Your task to perform on an android device: delete the emails in spam in the gmail app Image 0: 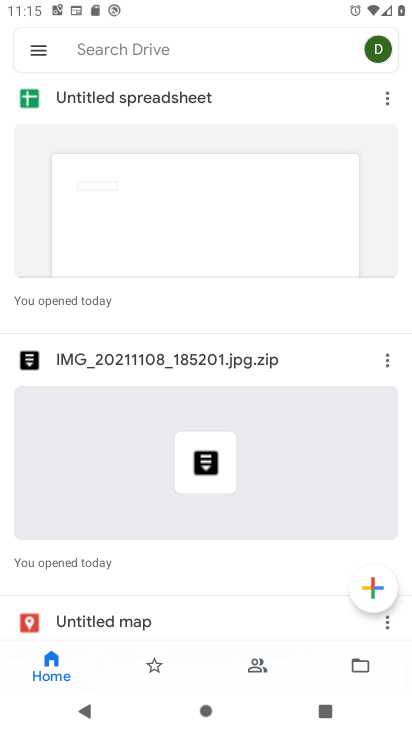
Step 0: press home button
Your task to perform on an android device: delete the emails in spam in the gmail app Image 1: 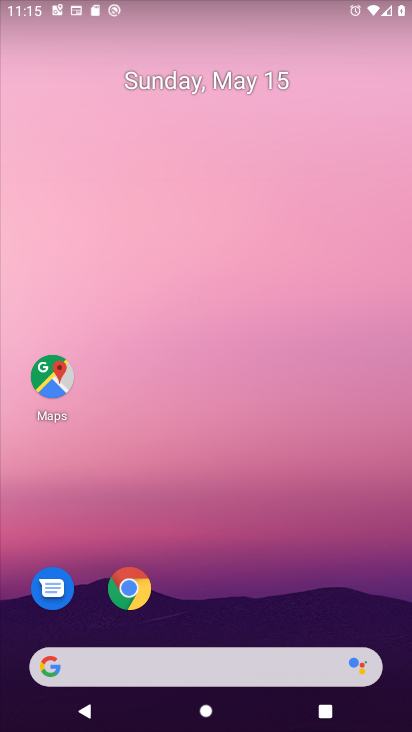
Step 1: drag from (232, 573) to (249, 142)
Your task to perform on an android device: delete the emails in spam in the gmail app Image 2: 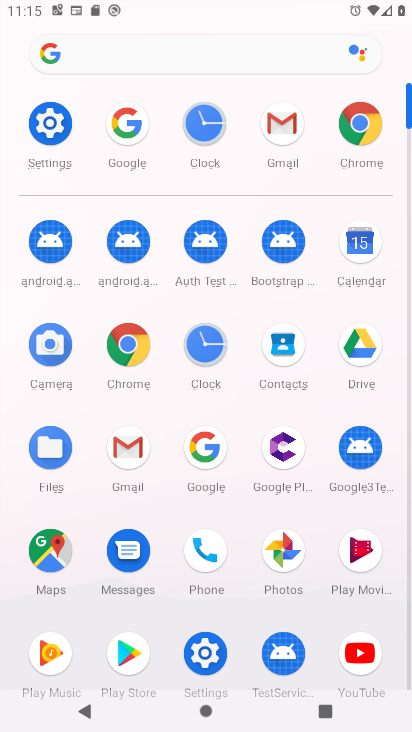
Step 2: click (276, 131)
Your task to perform on an android device: delete the emails in spam in the gmail app Image 3: 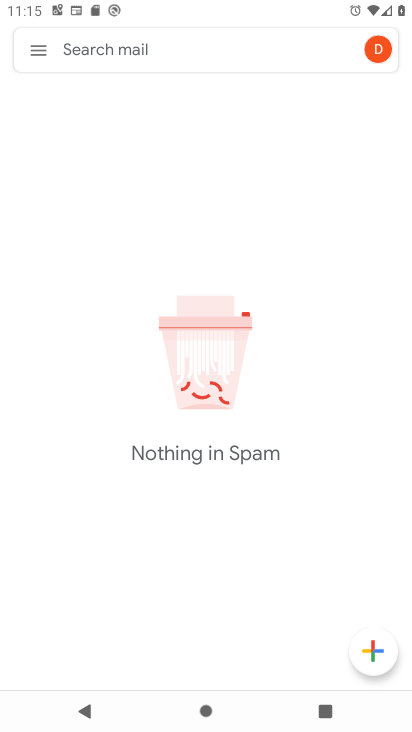
Step 3: task complete